Your task to perform on an android device: turn off sleep mode Image 0: 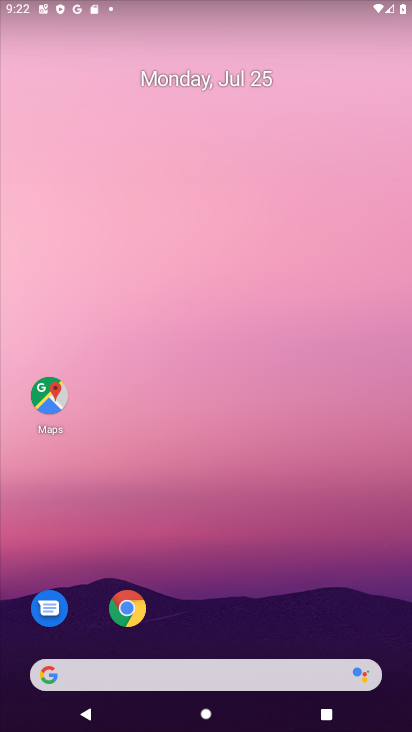
Step 0: drag from (285, 602) to (268, 72)
Your task to perform on an android device: turn off sleep mode Image 1: 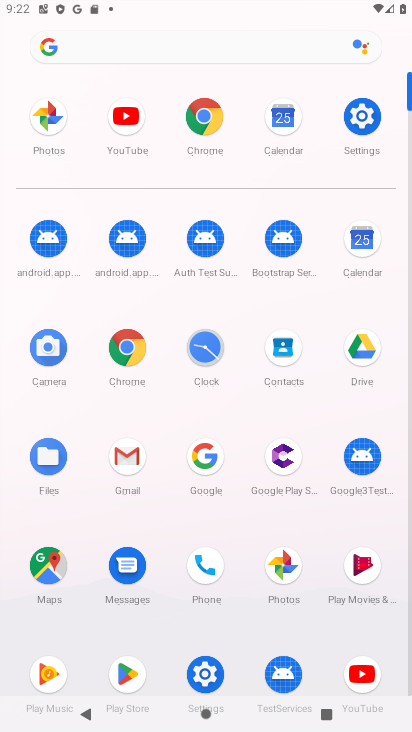
Step 1: click (356, 111)
Your task to perform on an android device: turn off sleep mode Image 2: 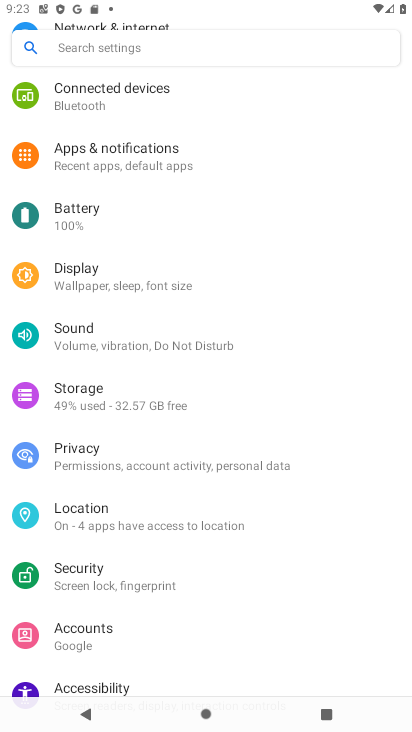
Step 2: task complete